Your task to perform on an android device: Search for Italian restaurants on Maps Image 0: 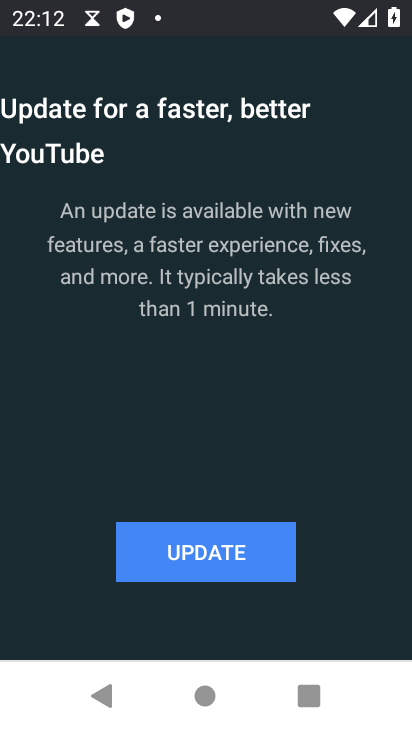
Step 0: press home button
Your task to perform on an android device: Search for Italian restaurants on Maps Image 1: 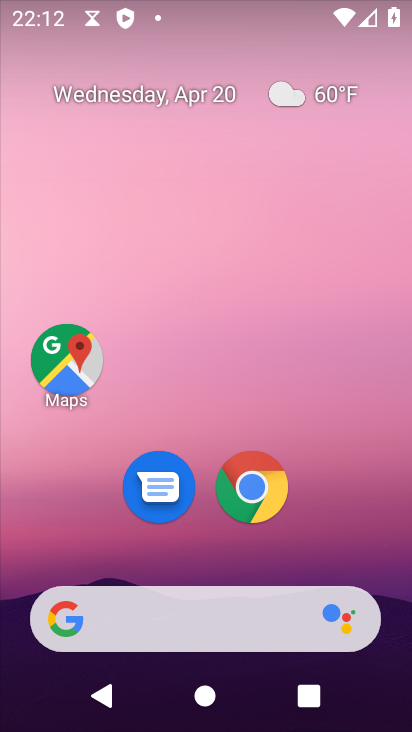
Step 1: click (90, 370)
Your task to perform on an android device: Search for Italian restaurants on Maps Image 2: 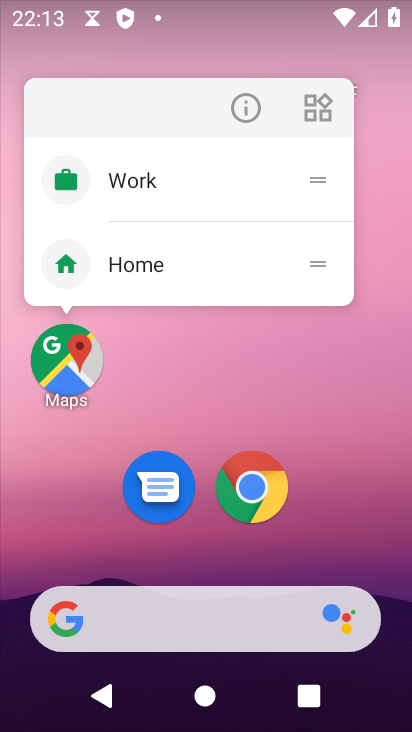
Step 2: click (61, 350)
Your task to perform on an android device: Search for Italian restaurants on Maps Image 3: 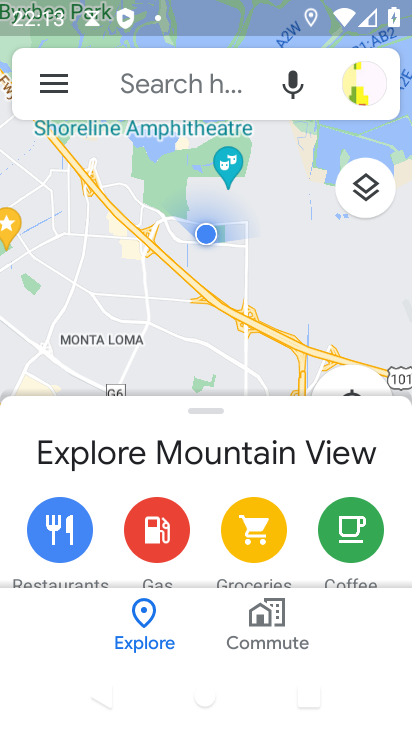
Step 3: click (193, 82)
Your task to perform on an android device: Search for Italian restaurants on Maps Image 4: 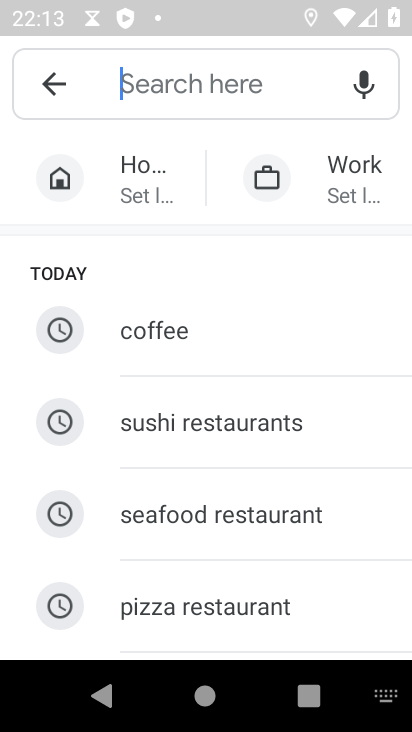
Step 4: drag from (180, 616) to (265, 346)
Your task to perform on an android device: Search for Italian restaurants on Maps Image 5: 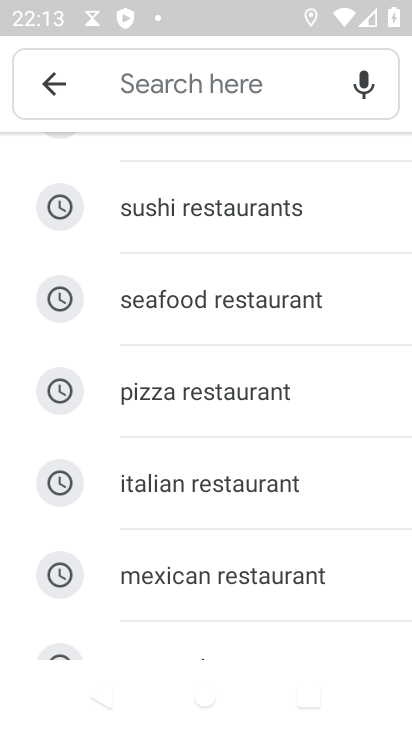
Step 5: click (215, 478)
Your task to perform on an android device: Search for Italian restaurants on Maps Image 6: 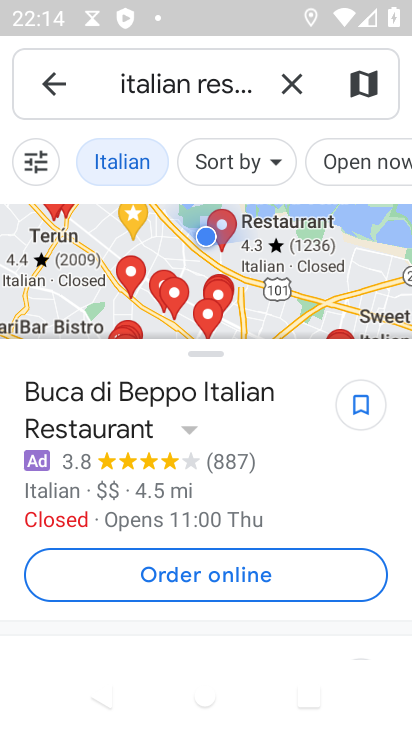
Step 6: task complete